Your task to perform on an android device: turn off airplane mode Image 0: 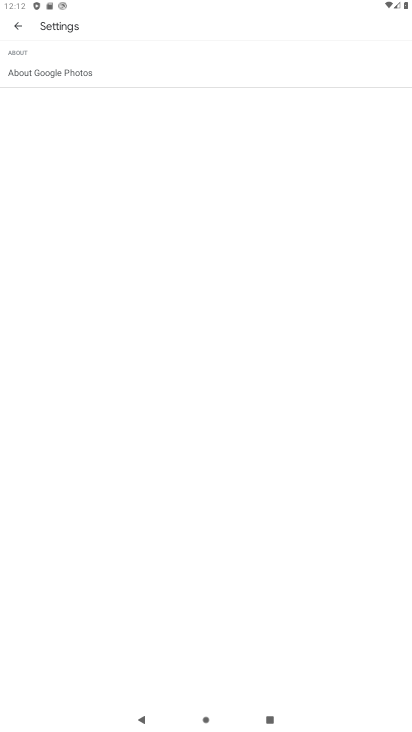
Step 0: task complete